Your task to perform on an android device: change keyboard looks Image 0: 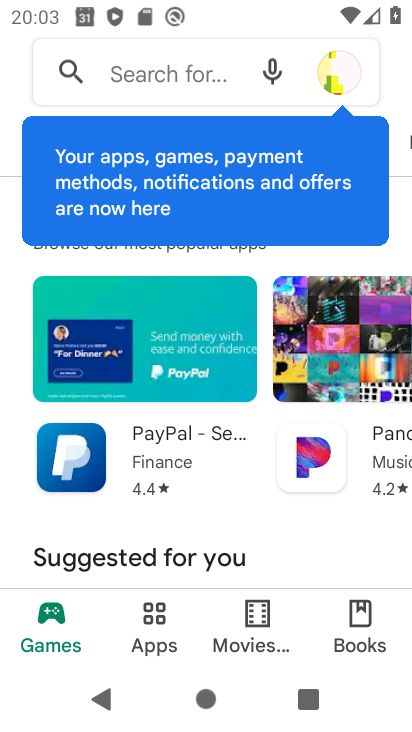
Step 0: press home button
Your task to perform on an android device: change keyboard looks Image 1: 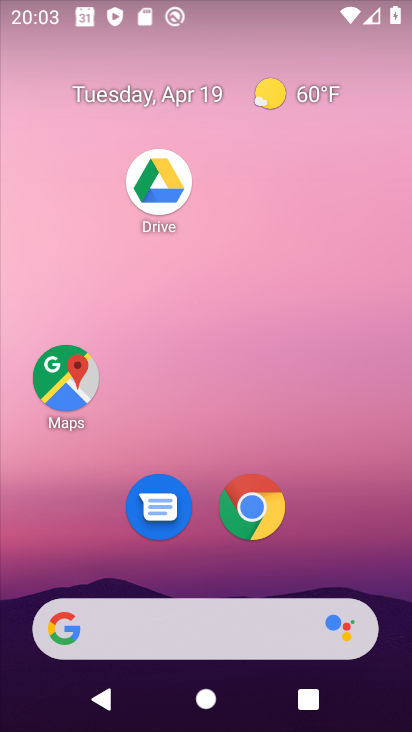
Step 1: drag from (325, 493) to (333, 132)
Your task to perform on an android device: change keyboard looks Image 2: 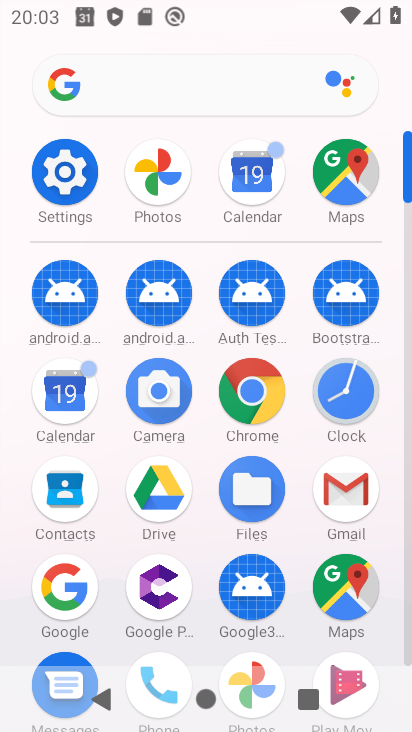
Step 2: click (79, 184)
Your task to perform on an android device: change keyboard looks Image 3: 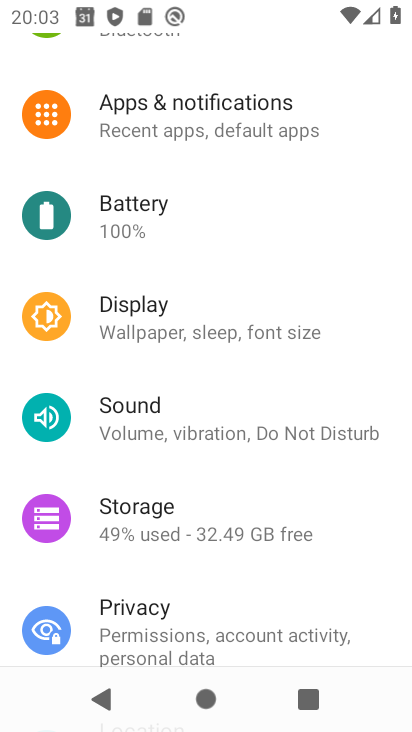
Step 3: drag from (270, 572) to (270, 173)
Your task to perform on an android device: change keyboard looks Image 4: 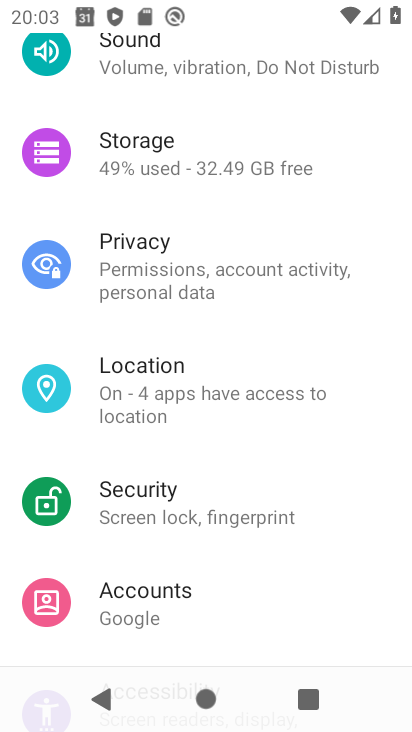
Step 4: drag from (287, 545) to (272, 141)
Your task to perform on an android device: change keyboard looks Image 5: 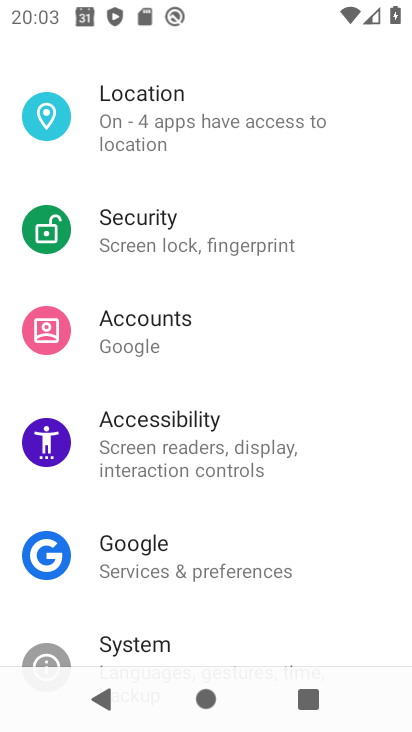
Step 5: drag from (275, 513) to (304, 222)
Your task to perform on an android device: change keyboard looks Image 6: 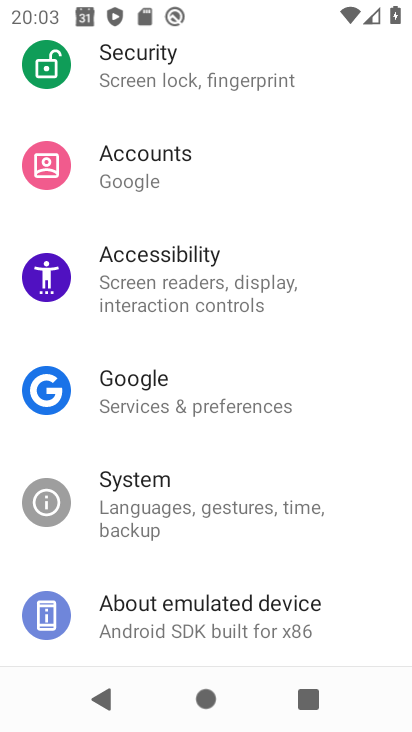
Step 6: click (203, 495)
Your task to perform on an android device: change keyboard looks Image 7: 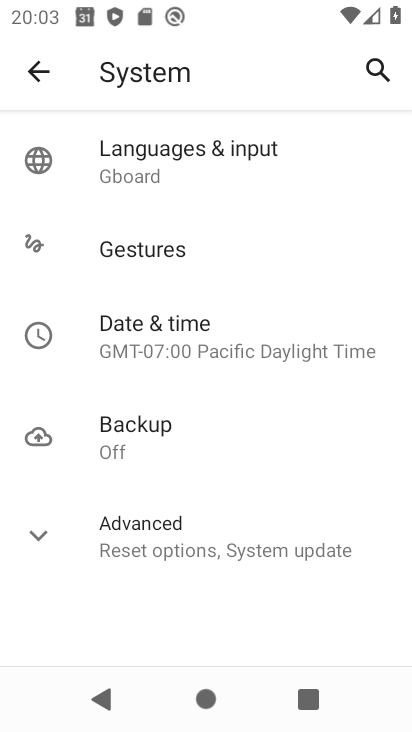
Step 7: click (199, 161)
Your task to perform on an android device: change keyboard looks Image 8: 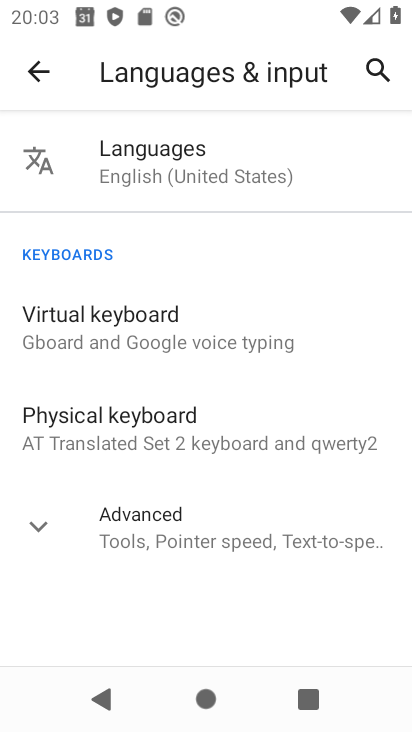
Step 8: click (145, 330)
Your task to perform on an android device: change keyboard looks Image 9: 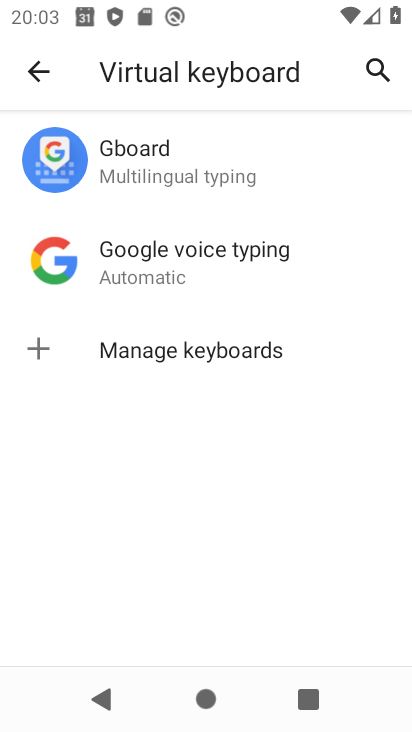
Step 9: click (189, 167)
Your task to perform on an android device: change keyboard looks Image 10: 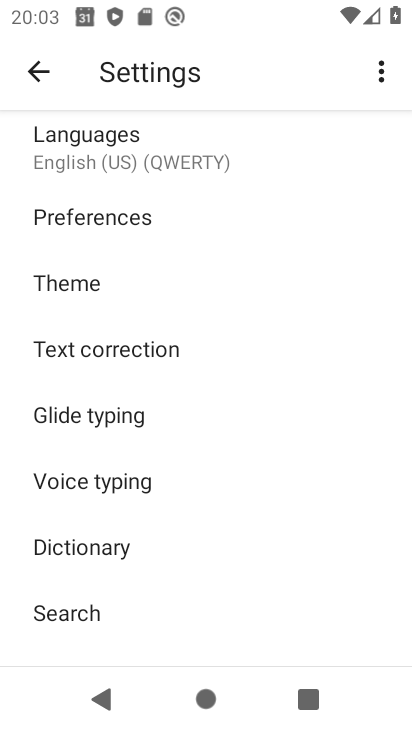
Step 10: click (122, 284)
Your task to perform on an android device: change keyboard looks Image 11: 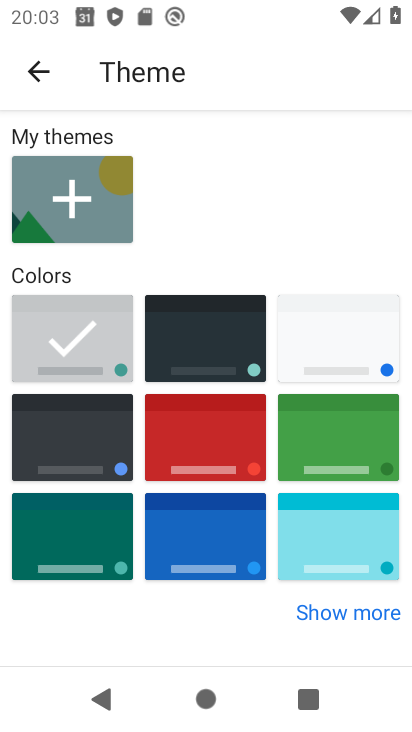
Step 11: click (230, 432)
Your task to perform on an android device: change keyboard looks Image 12: 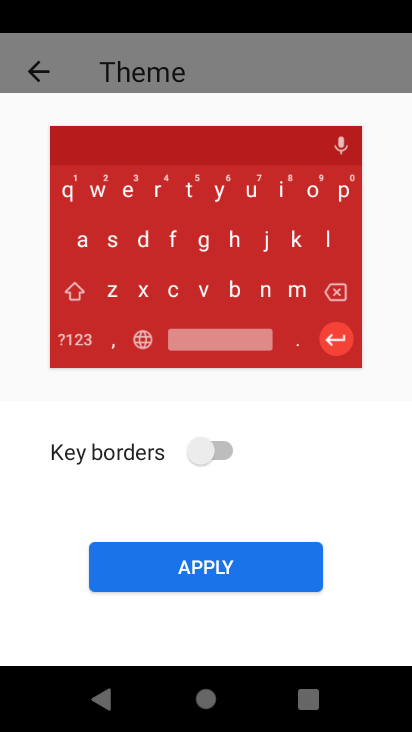
Step 12: click (226, 443)
Your task to perform on an android device: change keyboard looks Image 13: 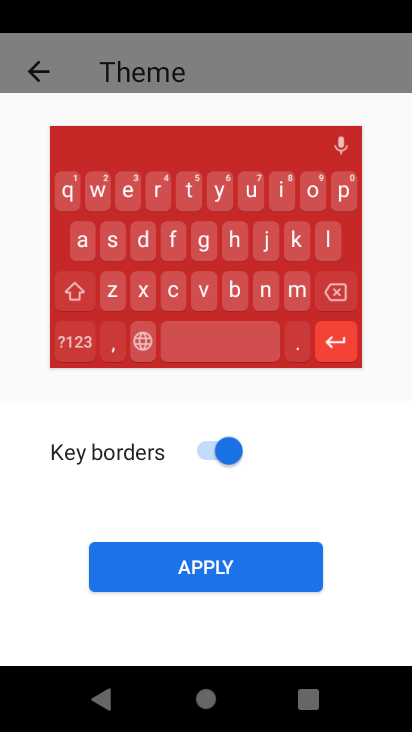
Step 13: click (210, 571)
Your task to perform on an android device: change keyboard looks Image 14: 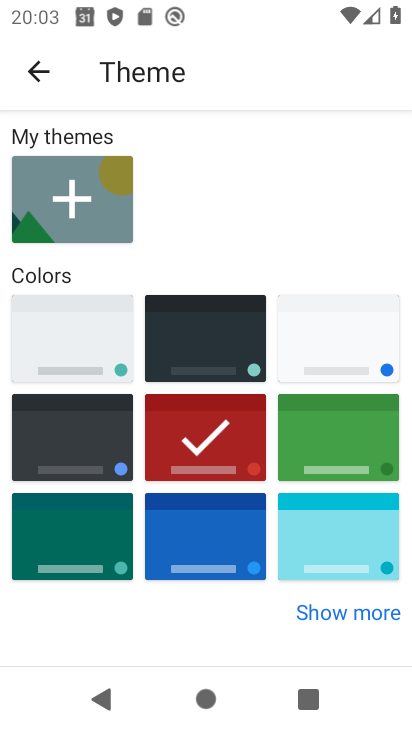
Step 14: task complete